Your task to perform on an android device: check android version Image 0: 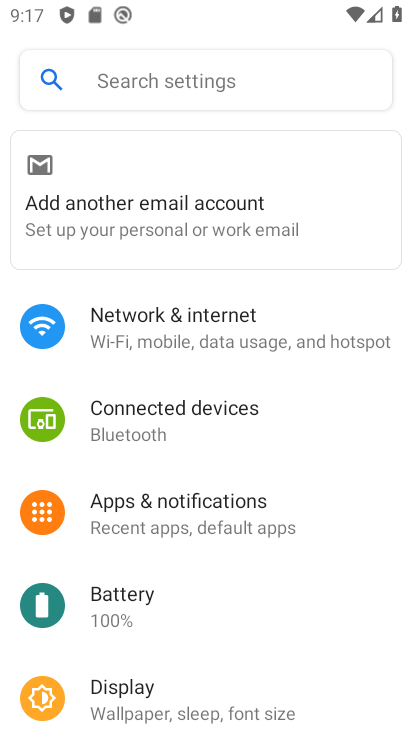
Step 0: drag from (324, 496) to (280, 140)
Your task to perform on an android device: check android version Image 1: 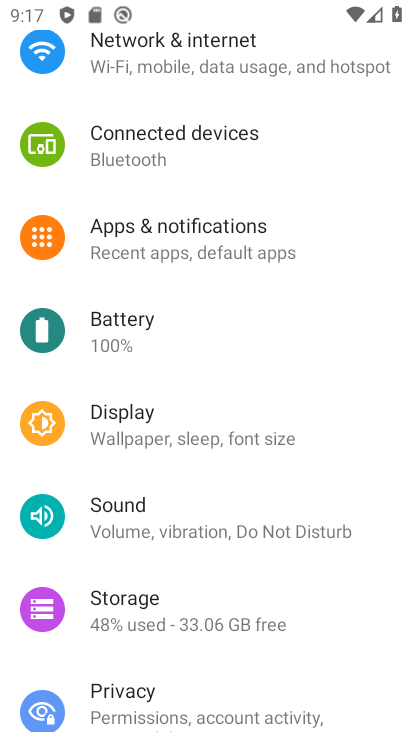
Step 1: drag from (280, 471) to (258, 74)
Your task to perform on an android device: check android version Image 2: 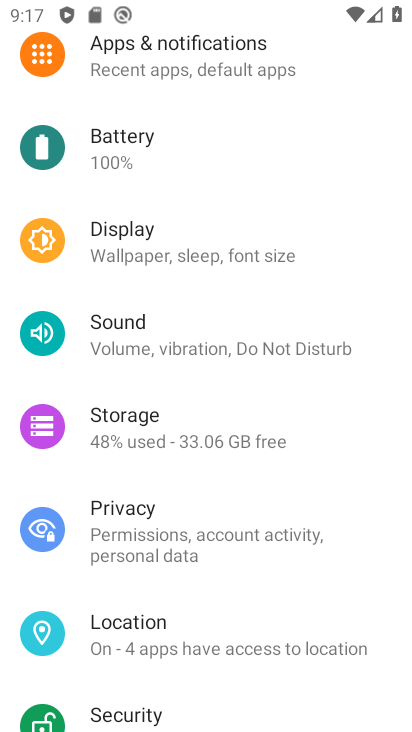
Step 2: drag from (233, 595) to (221, 173)
Your task to perform on an android device: check android version Image 3: 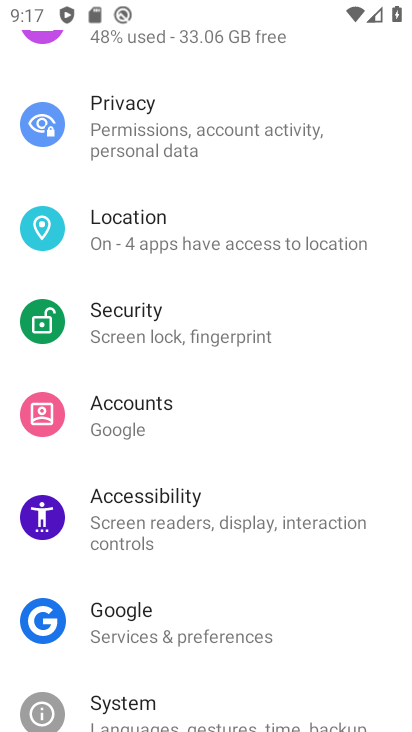
Step 3: drag from (286, 621) to (261, 30)
Your task to perform on an android device: check android version Image 4: 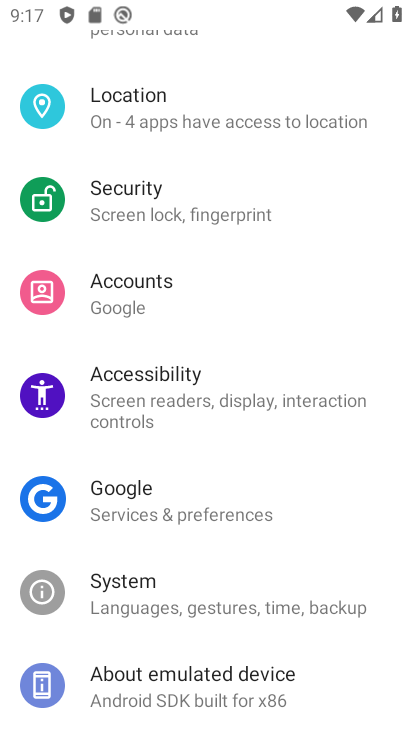
Step 4: click (158, 677)
Your task to perform on an android device: check android version Image 5: 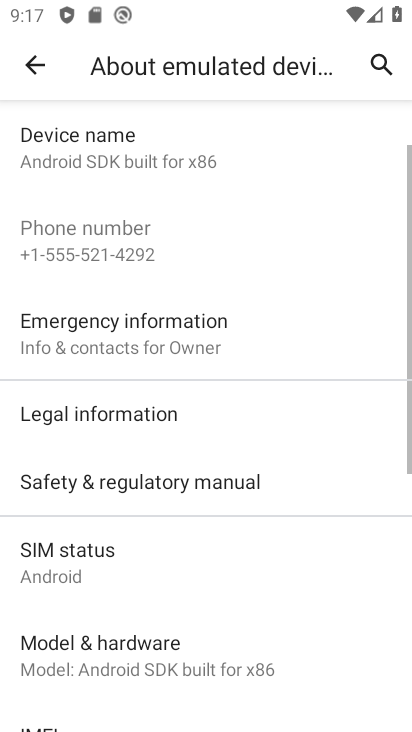
Step 5: drag from (209, 623) to (246, 106)
Your task to perform on an android device: check android version Image 6: 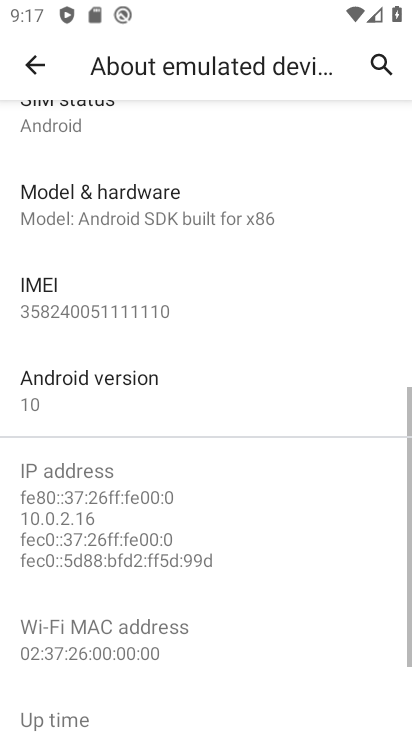
Step 6: drag from (216, 607) to (188, 197)
Your task to perform on an android device: check android version Image 7: 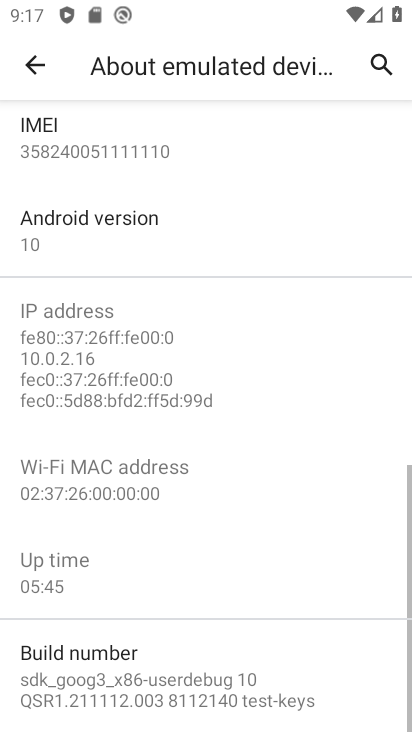
Step 7: click (56, 224)
Your task to perform on an android device: check android version Image 8: 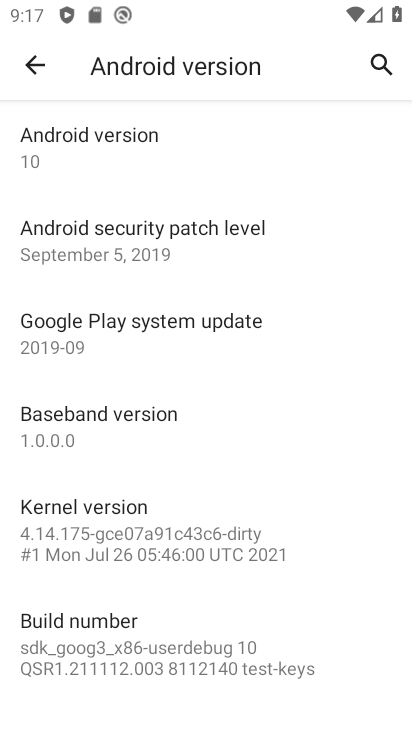
Step 8: task complete